Your task to perform on an android device: open chrome and create a bookmark for the current page Image 0: 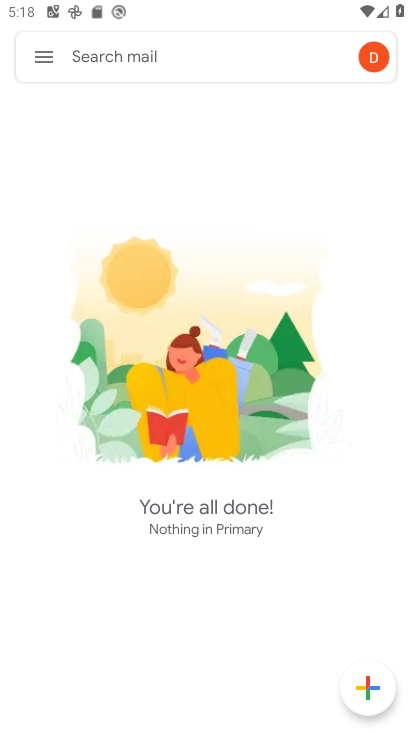
Step 0: press home button
Your task to perform on an android device: open chrome and create a bookmark for the current page Image 1: 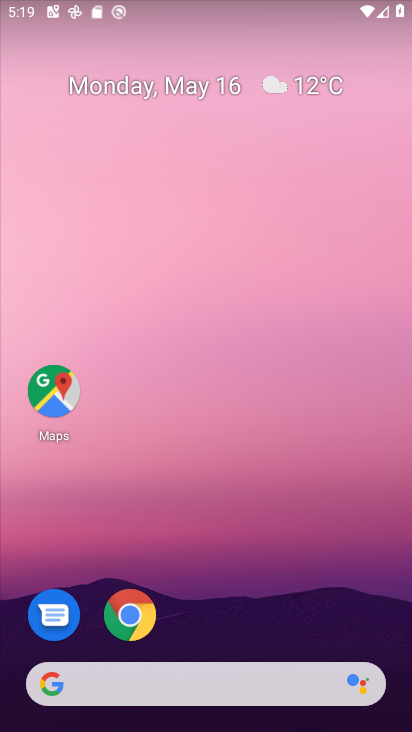
Step 1: click (125, 616)
Your task to perform on an android device: open chrome and create a bookmark for the current page Image 2: 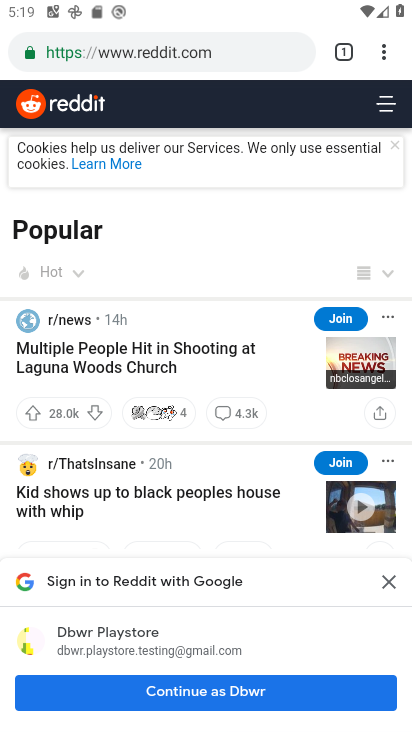
Step 2: click (380, 56)
Your task to perform on an android device: open chrome and create a bookmark for the current page Image 3: 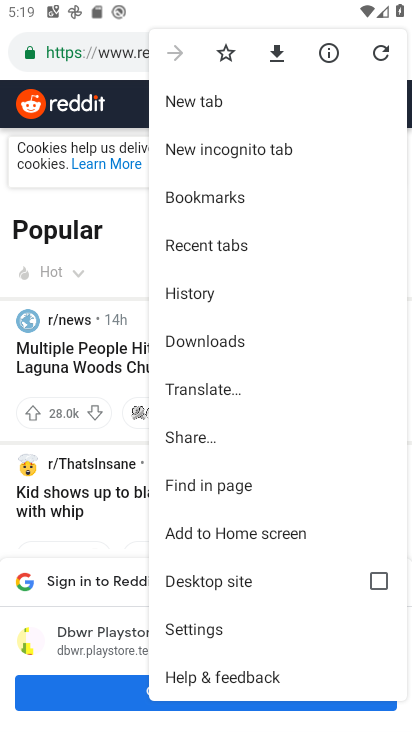
Step 3: click (233, 249)
Your task to perform on an android device: open chrome and create a bookmark for the current page Image 4: 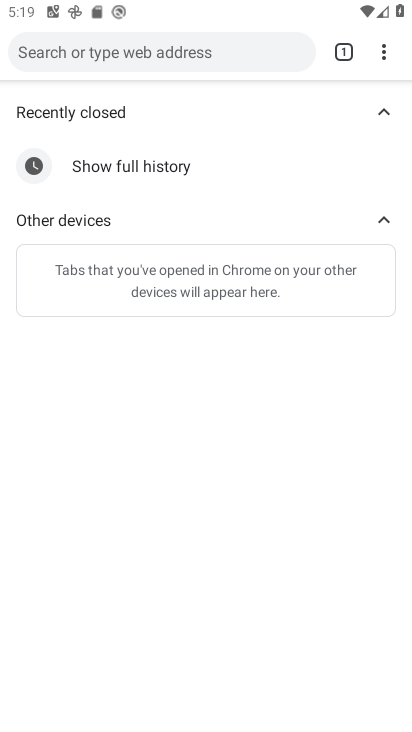
Step 4: click (382, 49)
Your task to perform on an android device: open chrome and create a bookmark for the current page Image 5: 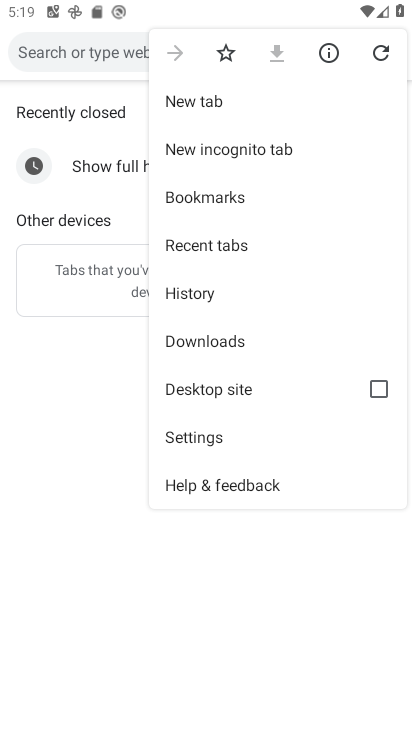
Step 5: click (223, 205)
Your task to perform on an android device: open chrome and create a bookmark for the current page Image 6: 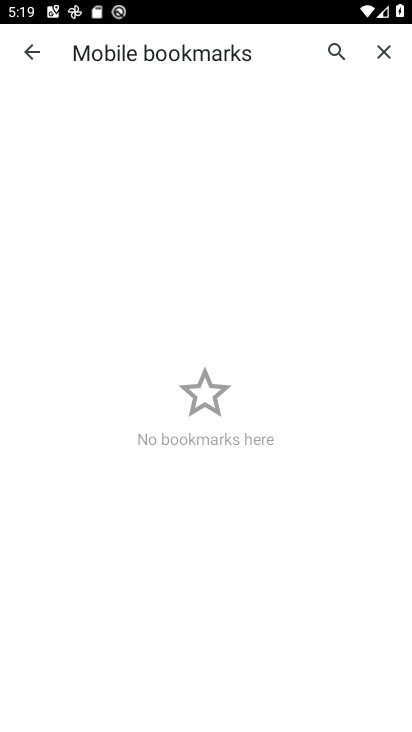
Step 6: task complete